Your task to perform on an android device: Open wifi settings Image 0: 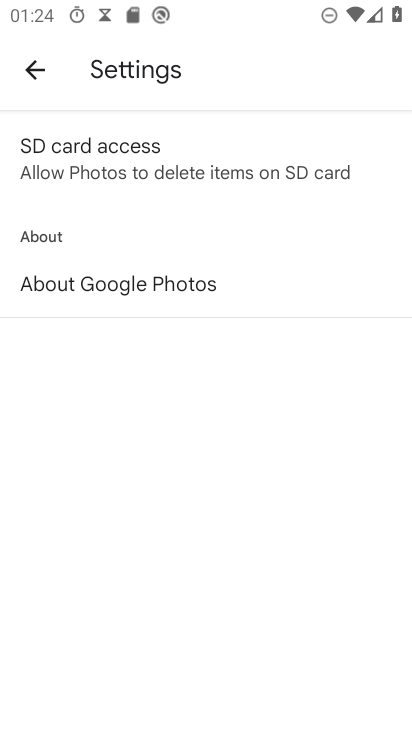
Step 0: press home button
Your task to perform on an android device: Open wifi settings Image 1: 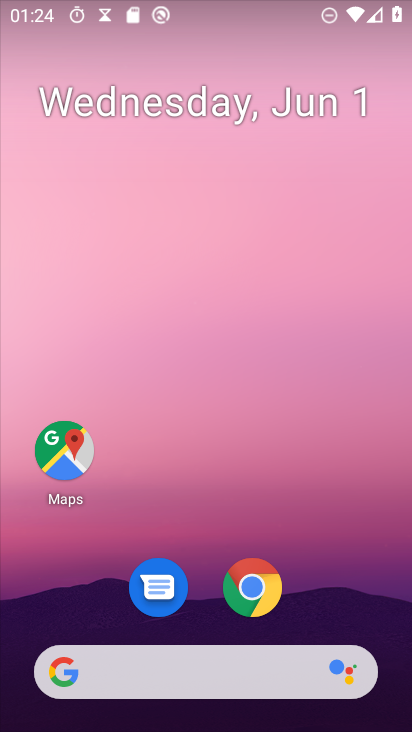
Step 1: drag from (304, 591) to (399, 31)
Your task to perform on an android device: Open wifi settings Image 2: 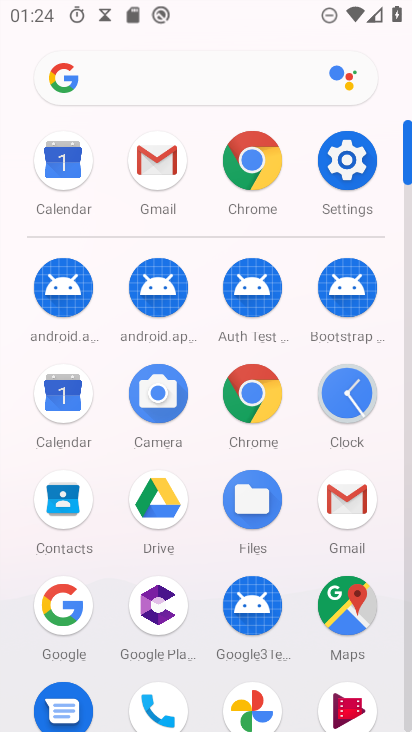
Step 2: click (353, 155)
Your task to perform on an android device: Open wifi settings Image 3: 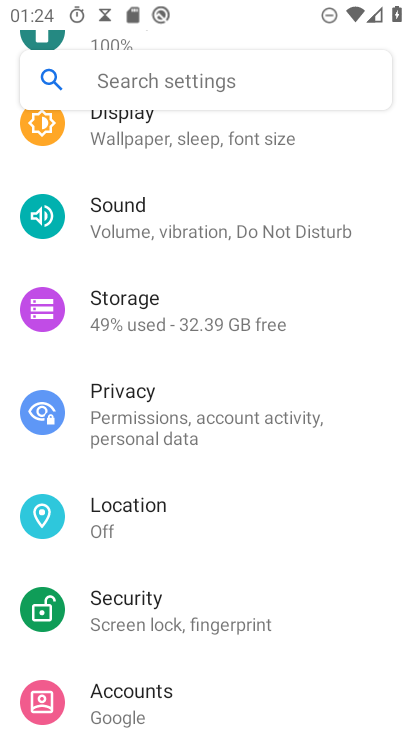
Step 3: drag from (162, 188) to (232, 721)
Your task to perform on an android device: Open wifi settings Image 4: 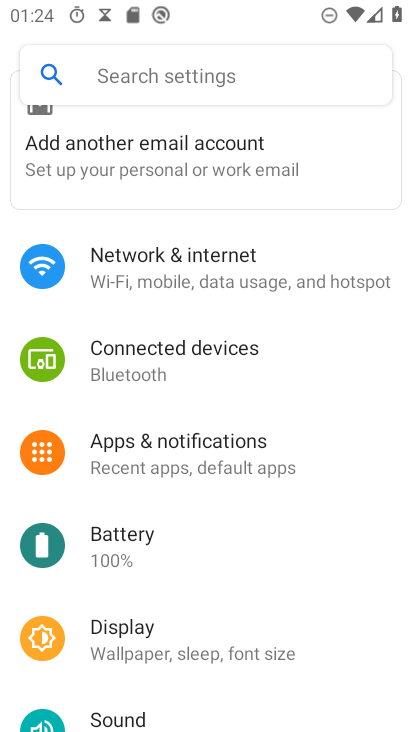
Step 4: click (190, 269)
Your task to perform on an android device: Open wifi settings Image 5: 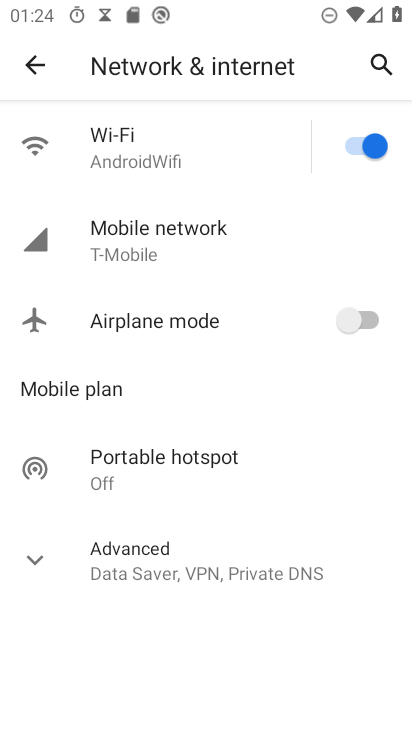
Step 5: click (141, 150)
Your task to perform on an android device: Open wifi settings Image 6: 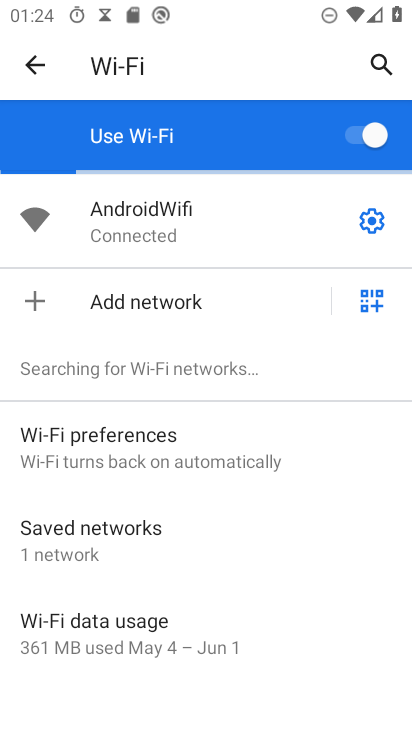
Step 6: task complete